Your task to perform on an android device: Is it going to rain today? Image 0: 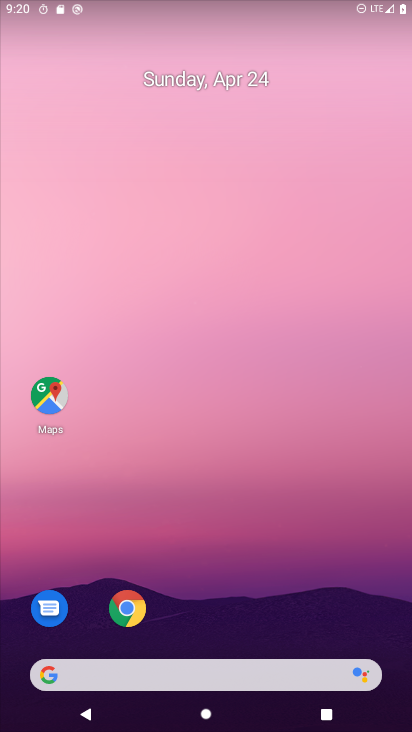
Step 0: click (214, 673)
Your task to perform on an android device: Is it going to rain today? Image 1: 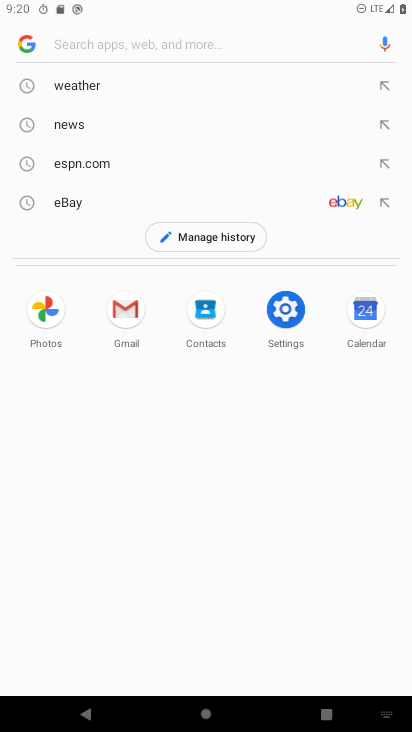
Step 1: click (81, 82)
Your task to perform on an android device: Is it going to rain today? Image 2: 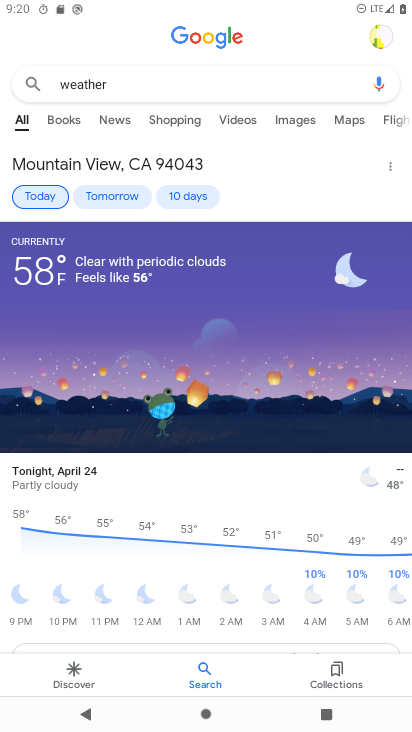
Step 2: task complete